Your task to perform on an android device: Go to Google Image 0: 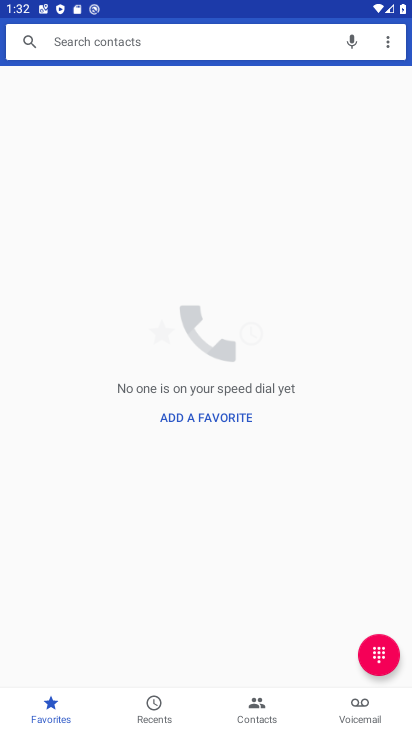
Step 0: press home button
Your task to perform on an android device: Go to Google Image 1: 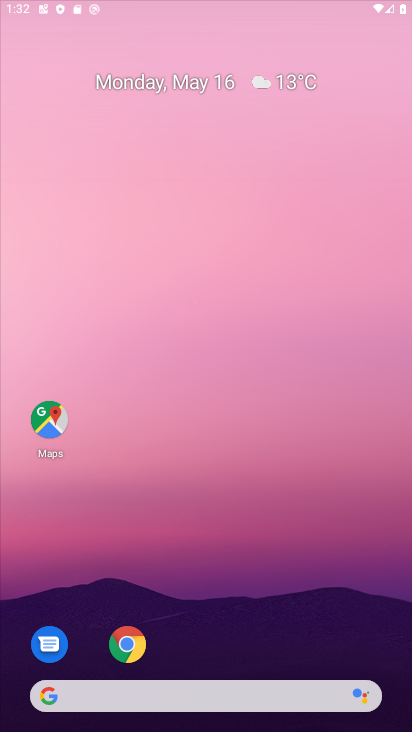
Step 1: drag from (229, 629) to (266, 221)
Your task to perform on an android device: Go to Google Image 2: 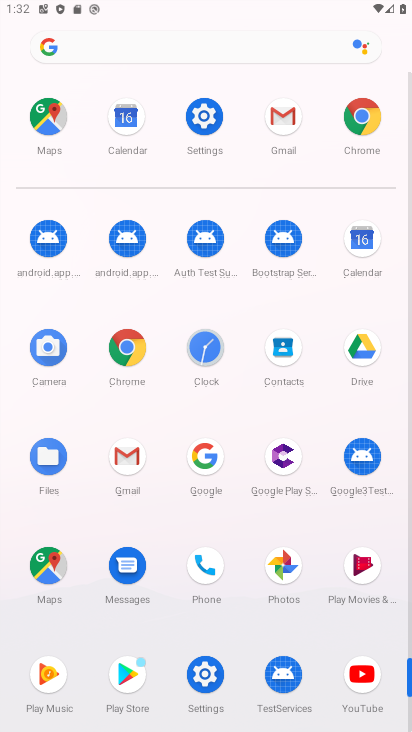
Step 2: click (216, 476)
Your task to perform on an android device: Go to Google Image 3: 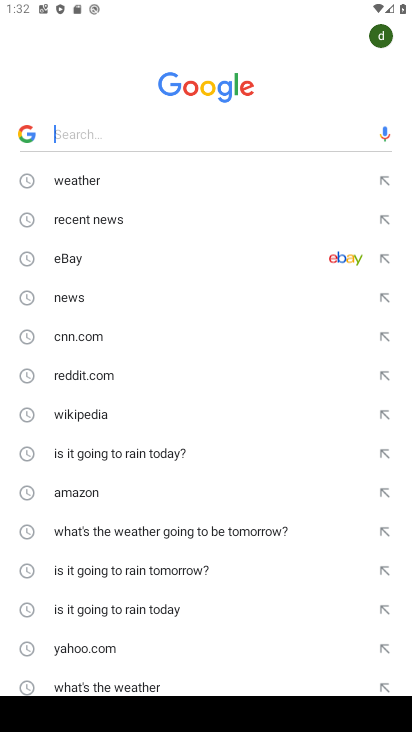
Step 3: task complete